Your task to perform on an android device: check data usage Image 0: 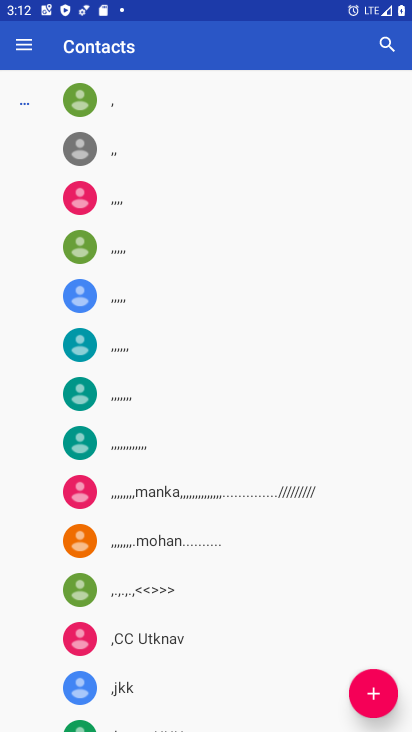
Step 0: press home button
Your task to perform on an android device: check data usage Image 1: 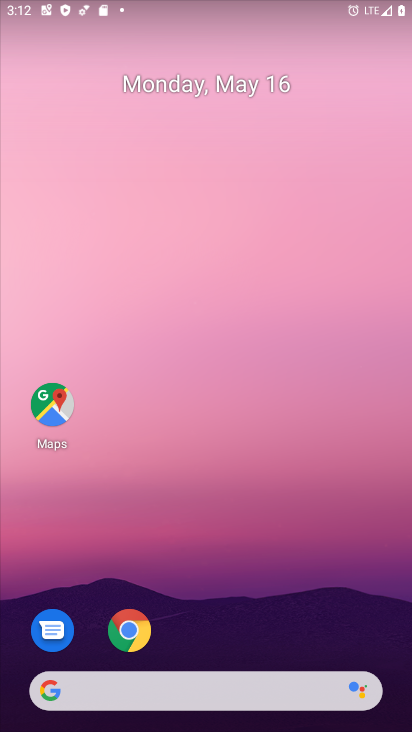
Step 1: drag from (225, 665) to (267, 103)
Your task to perform on an android device: check data usage Image 2: 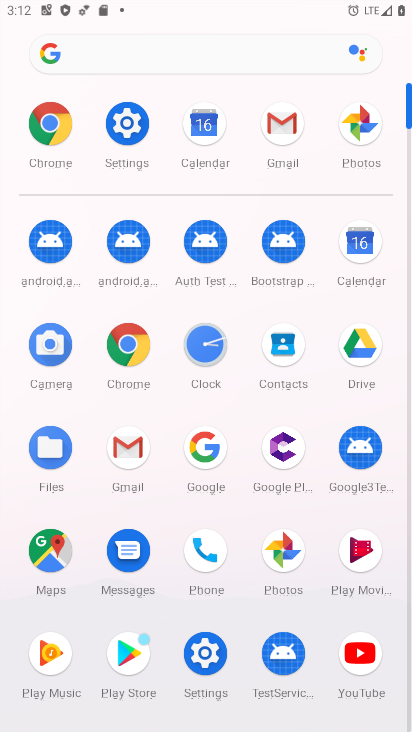
Step 2: click (126, 117)
Your task to perform on an android device: check data usage Image 3: 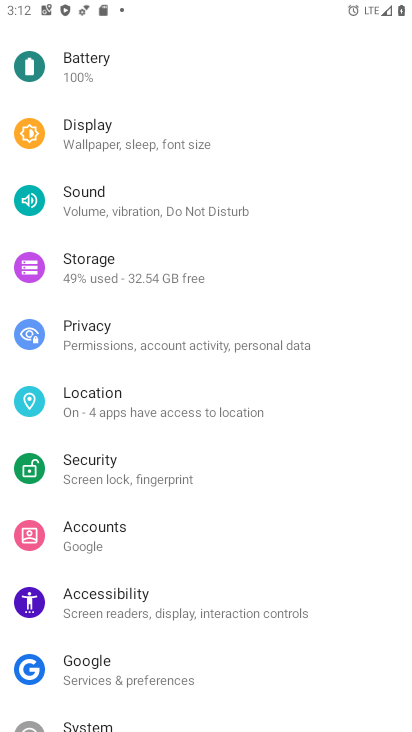
Step 3: drag from (129, 96) to (230, 638)
Your task to perform on an android device: check data usage Image 4: 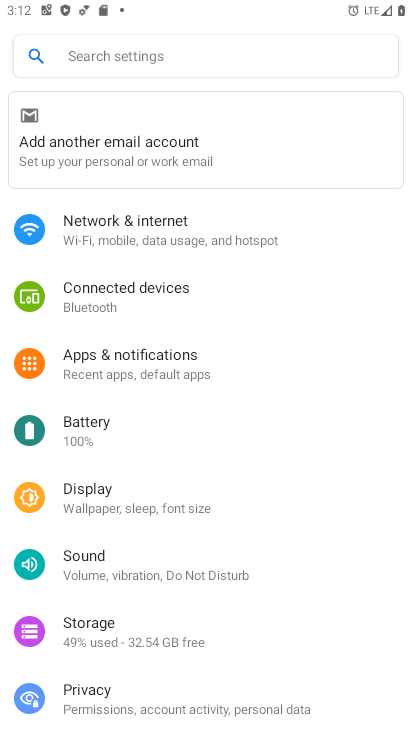
Step 4: click (157, 222)
Your task to perform on an android device: check data usage Image 5: 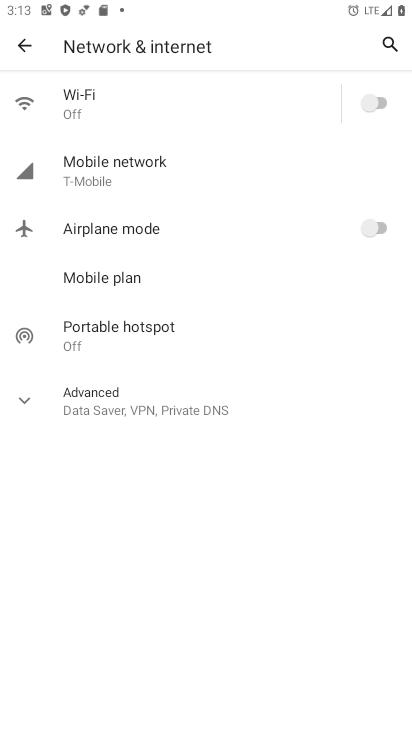
Step 5: click (126, 175)
Your task to perform on an android device: check data usage Image 6: 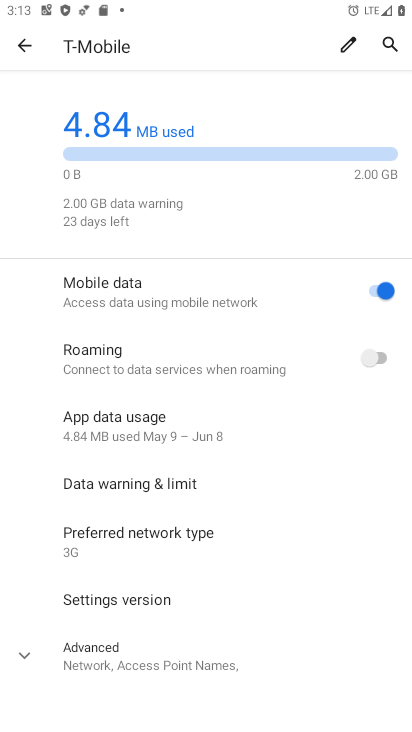
Step 6: click (135, 433)
Your task to perform on an android device: check data usage Image 7: 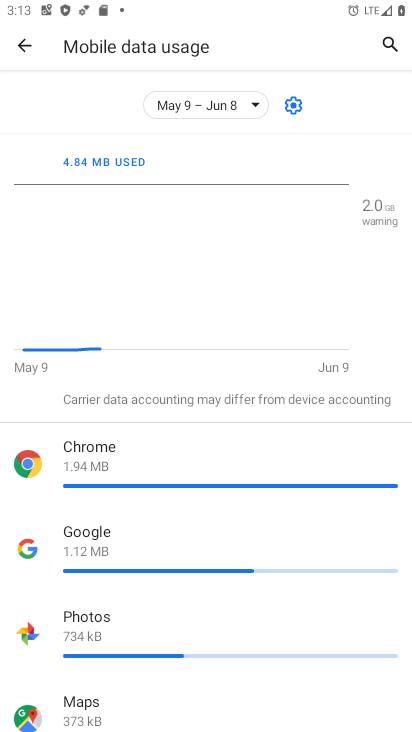
Step 7: task complete